Your task to perform on an android device: read, delete, or share a saved page in the chrome app Image 0: 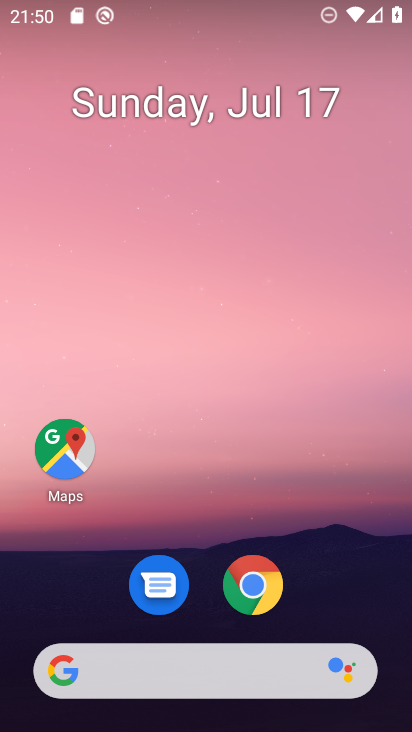
Step 0: press home button
Your task to perform on an android device: read, delete, or share a saved page in the chrome app Image 1: 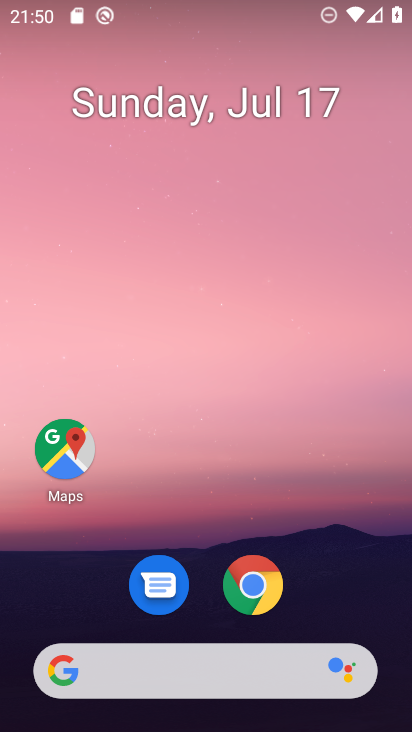
Step 1: click (240, 598)
Your task to perform on an android device: read, delete, or share a saved page in the chrome app Image 2: 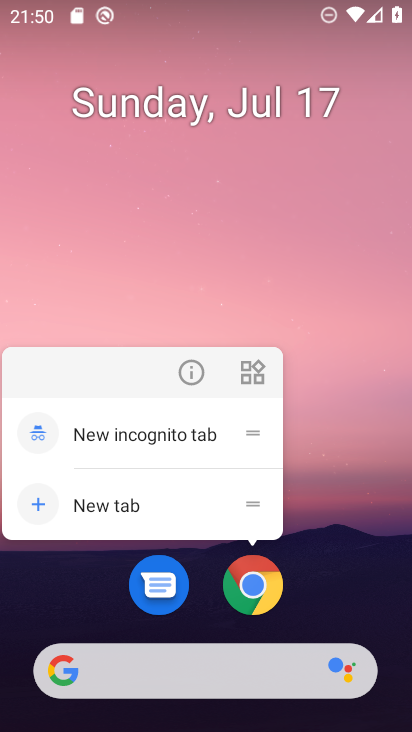
Step 2: click (250, 579)
Your task to perform on an android device: read, delete, or share a saved page in the chrome app Image 3: 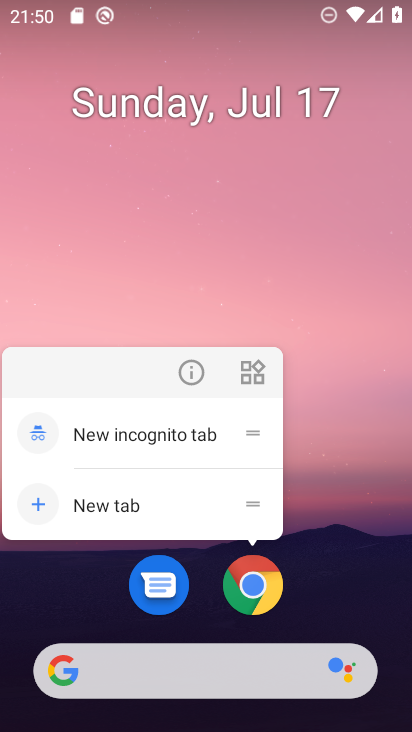
Step 3: click (251, 579)
Your task to perform on an android device: read, delete, or share a saved page in the chrome app Image 4: 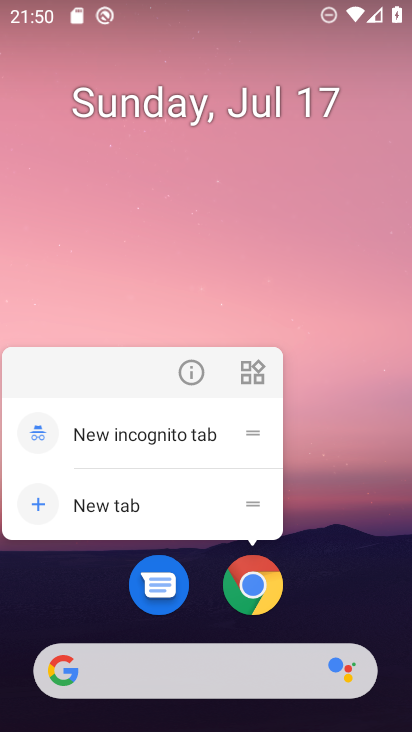
Step 4: click (251, 581)
Your task to perform on an android device: read, delete, or share a saved page in the chrome app Image 5: 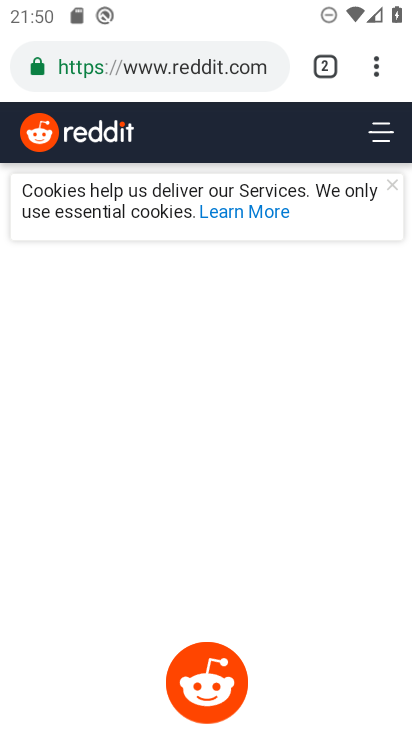
Step 5: drag from (378, 66) to (177, 434)
Your task to perform on an android device: read, delete, or share a saved page in the chrome app Image 6: 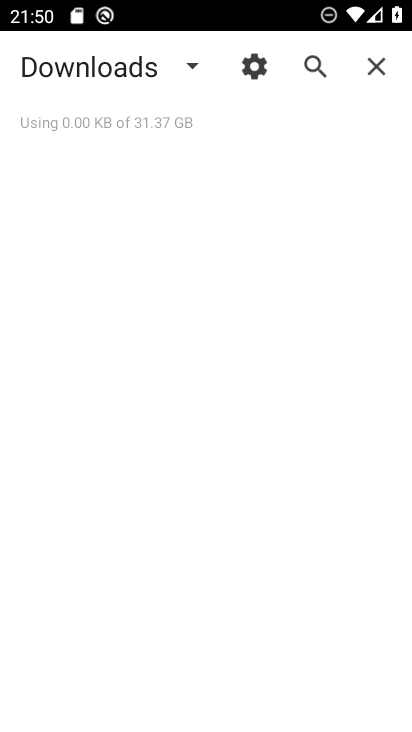
Step 6: click (187, 63)
Your task to perform on an android device: read, delete, or share a saved page in the chrome app Image 7: 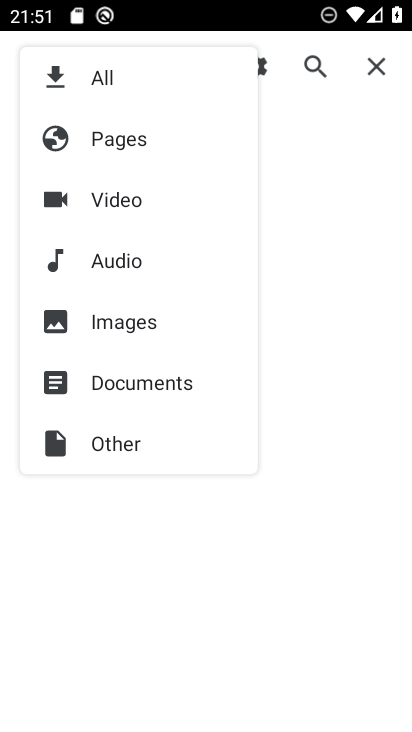
Step 7: click (134, 139)
Your task to perform on an android device: read, delete, or share a saved page in the chrome app Image 8: 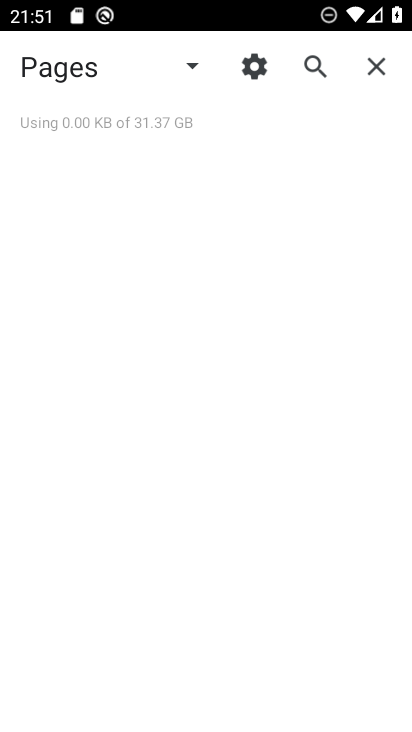
Step 8: task complete